Your task to perform on an android device: clear history in the chrome app Image 0: 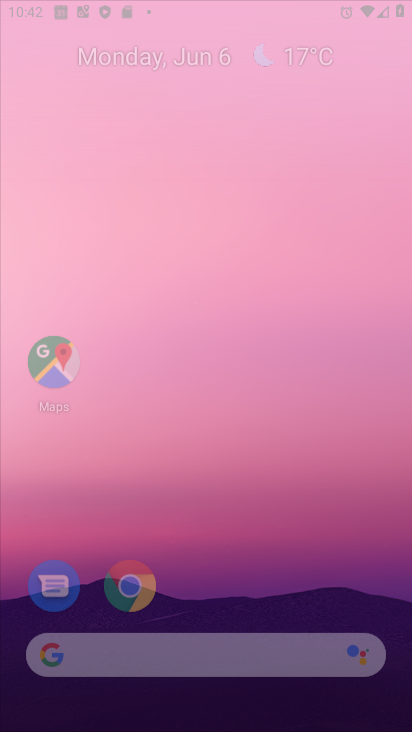
Step 0: press home button
Your task to perform on an android device: clear history in the chrome app Image 1: 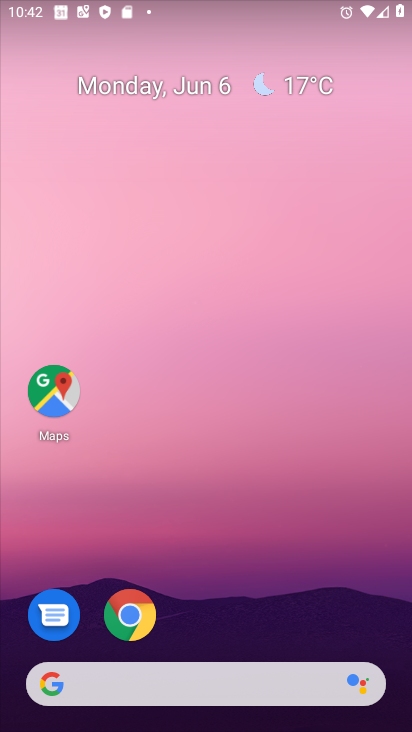
Step 1: click (122, 607)
Your task to perform on an android device: clear history in the chrome app Image 2: 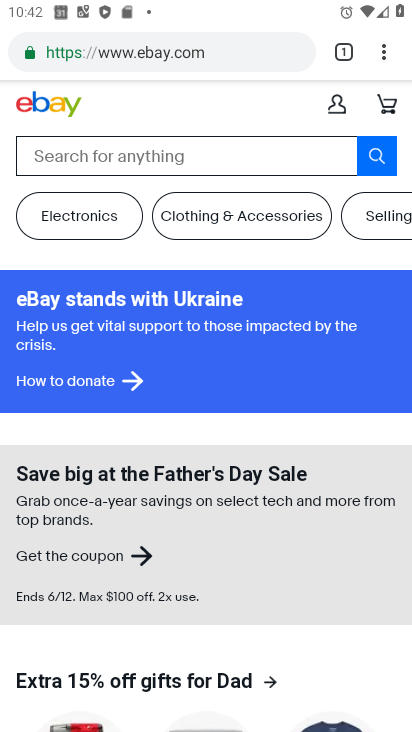
Step 2: click (384, 43)
Your task to perform on an android device: clear history in the chrome app Image 3: 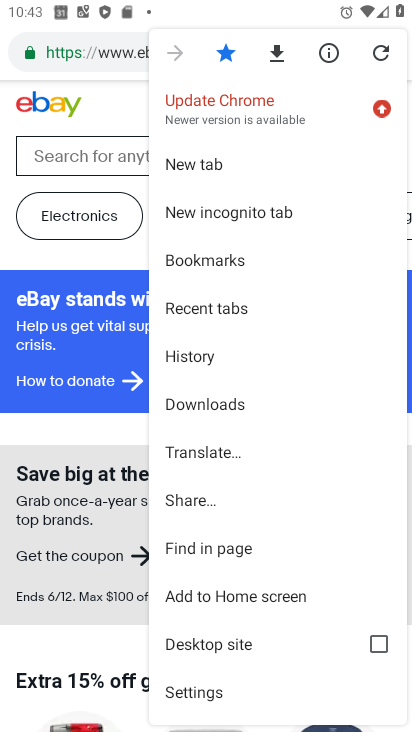
Step 3: click (219, 352)
Your task to perform on an android device: clear history in the chrome app Image 4: 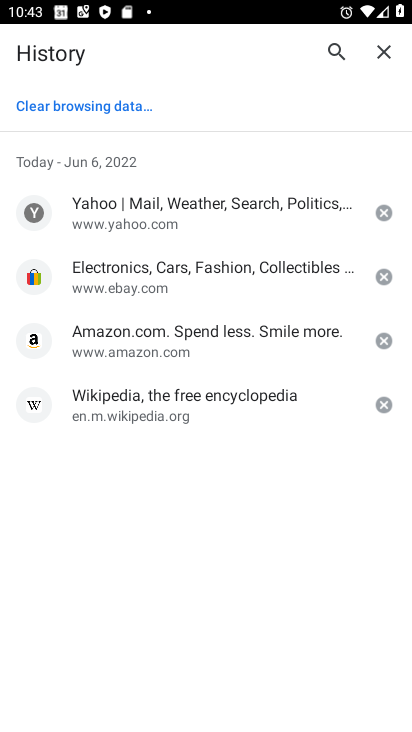
Step 4: click (94, 102)
Your task to perform on an android device: clear history in the chrome app Image 5: 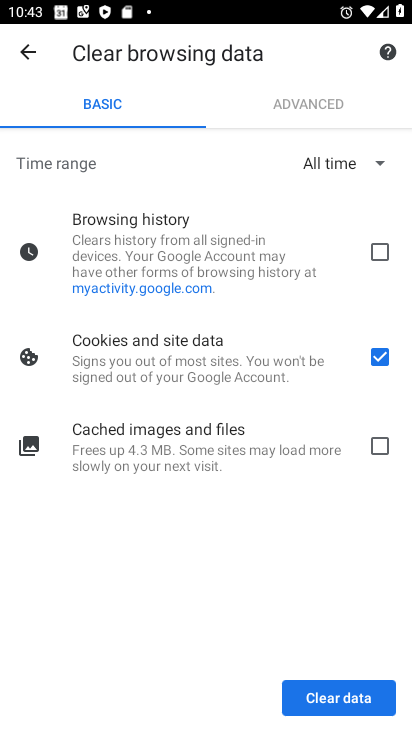
Step 5: click (384, 248)
Your task to perform on an android device: clear history in the chrome app Image 6: 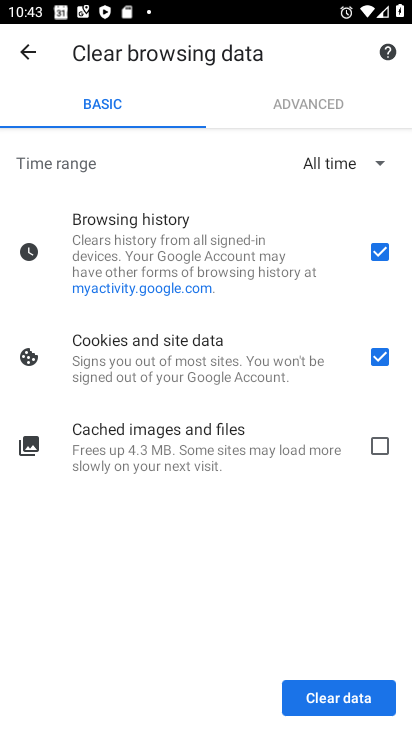
Step 6: click (378, 452)
Your task to perform on an android device: clear history in the chrome app Image 7: 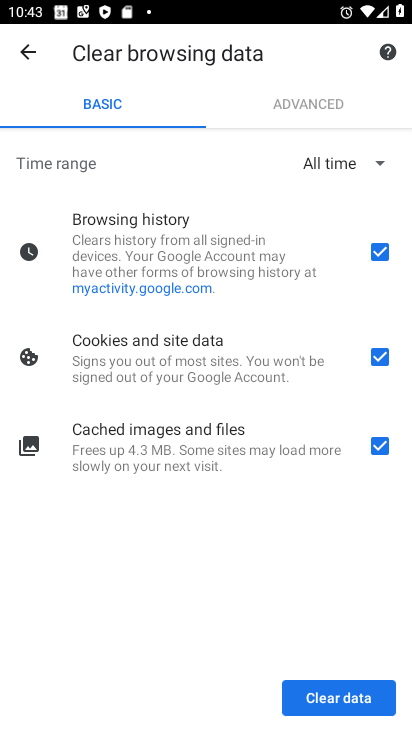
Step 7: click (334, 695)
Your task to perform on an android device: clear history in the chrome app Image 8: 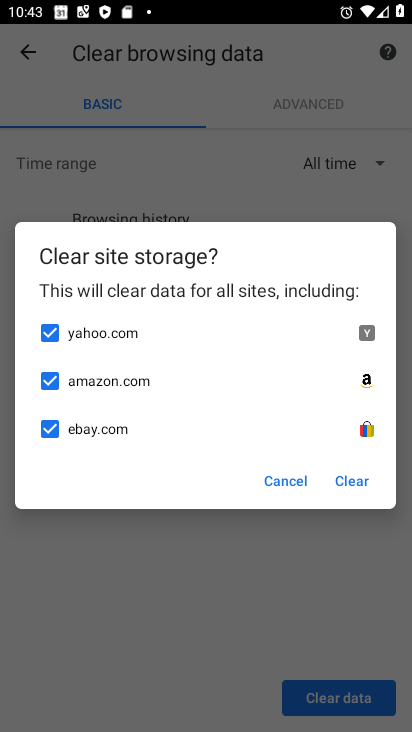
Step 8: click (348, 474)
Your task to perform on an android device: clear history in the chrome app Image 9: 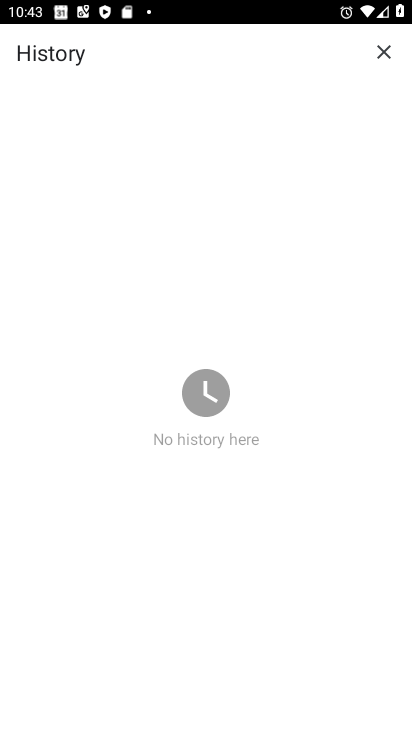
Step 9: task complete